Your task to perform on an android device: Go to Google maps Image 0: 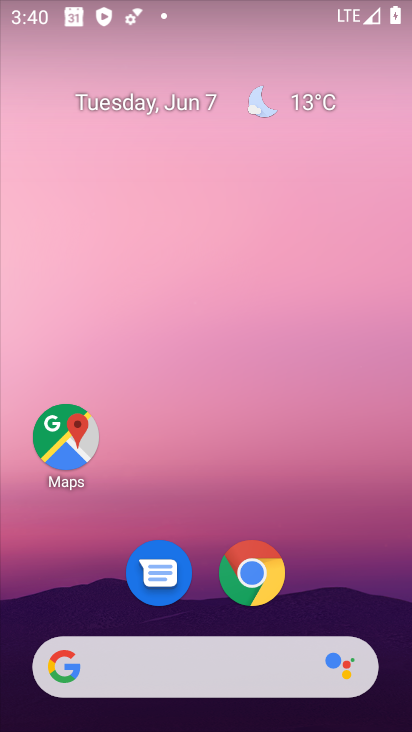
Step 0: click (85, 433)
Your task to perform on an android device: Go to Google maps Image 1: 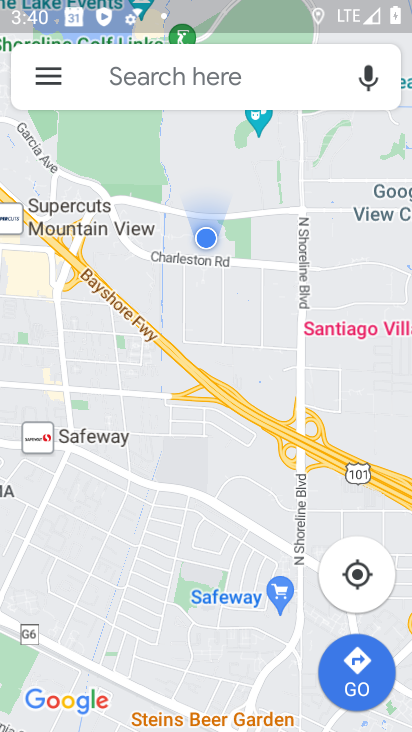
Step 1: task complete